Your task to perform on an android device: Open Google Maps Image 0: 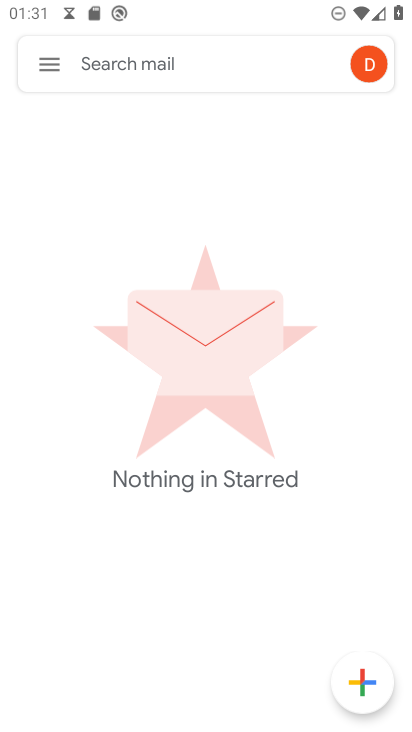
Step 0: press home button
Your task to perform on an android device: Open Google Maps Image 1: 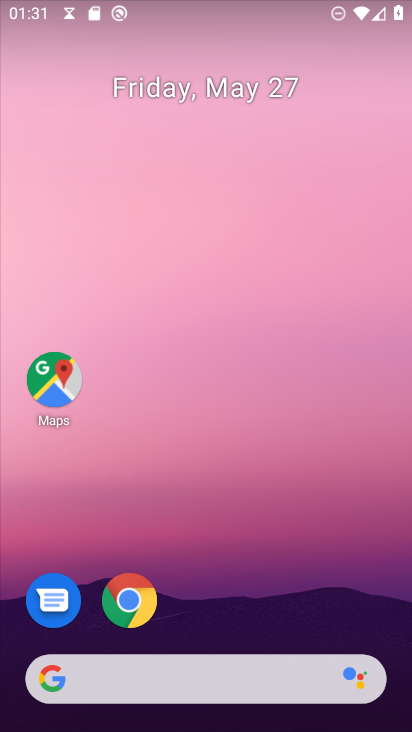
Step 1: click (56, 394)
Your task to perform on an android device: Open Google Maps Image 2: 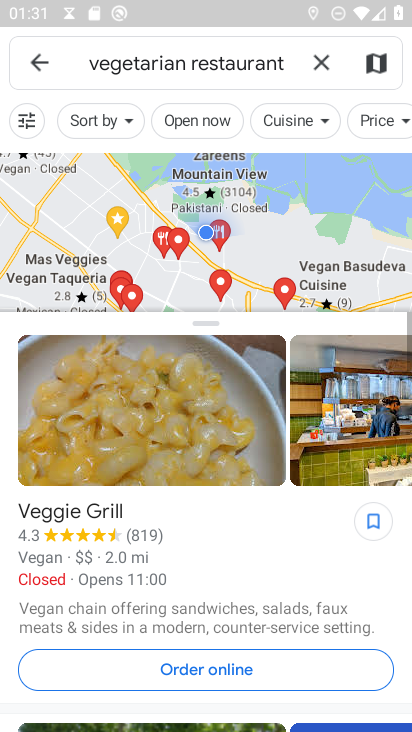
Step 2: task complete